Your task to perform on an android device: turn on the 24-hour format for clock Image 0: 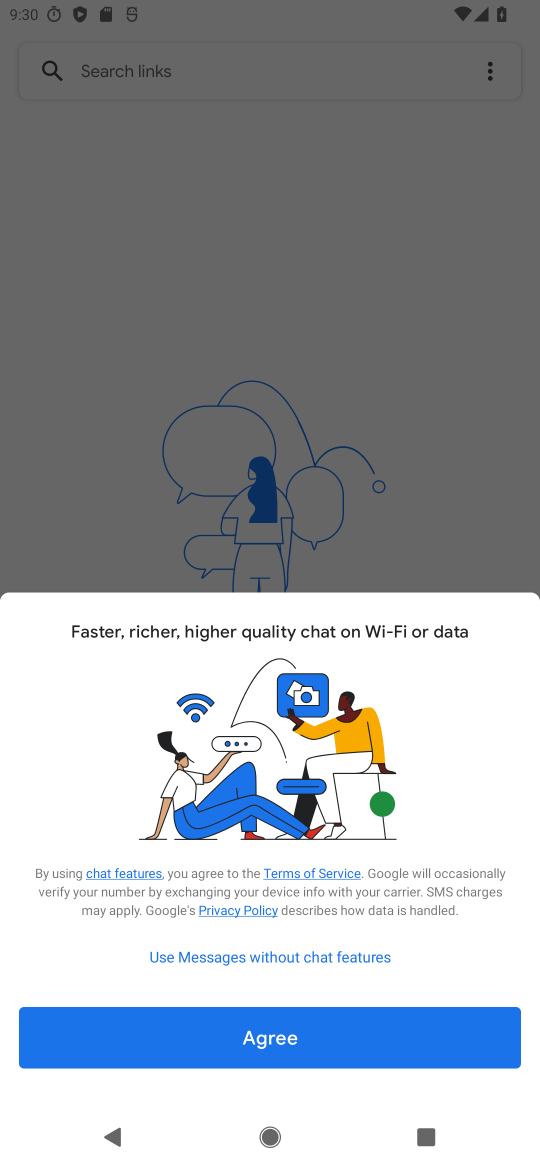
Step 0: press home button
Your task to perform on an android device: turn on the 24-hour format for clock Image 1: 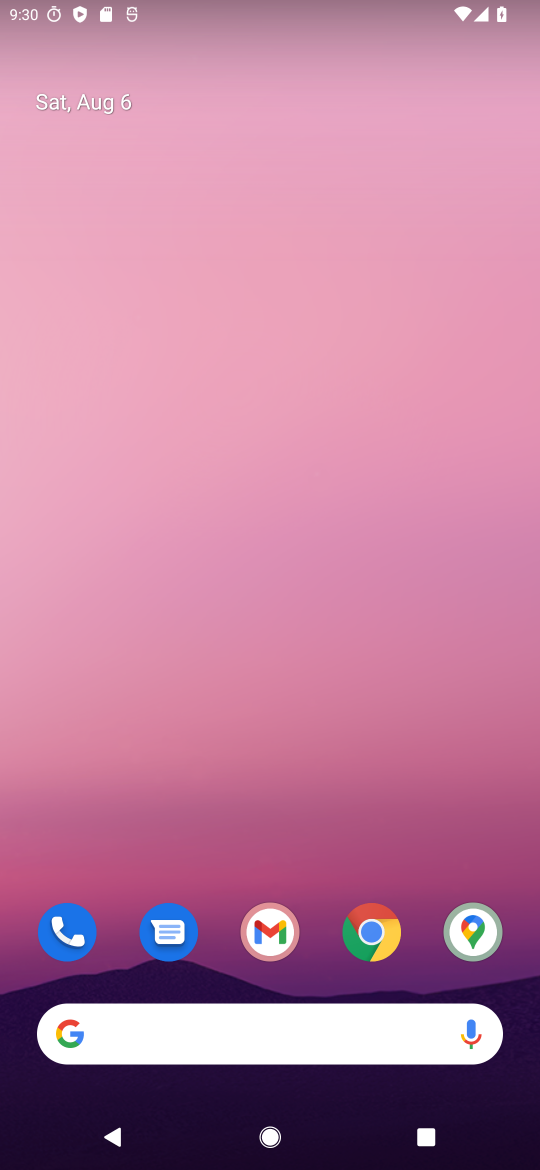
Step 1: drag from (279, 1030) to (386, 219)
Your task to perform on an android device: turn on the 24-hour format for clock Image 2: 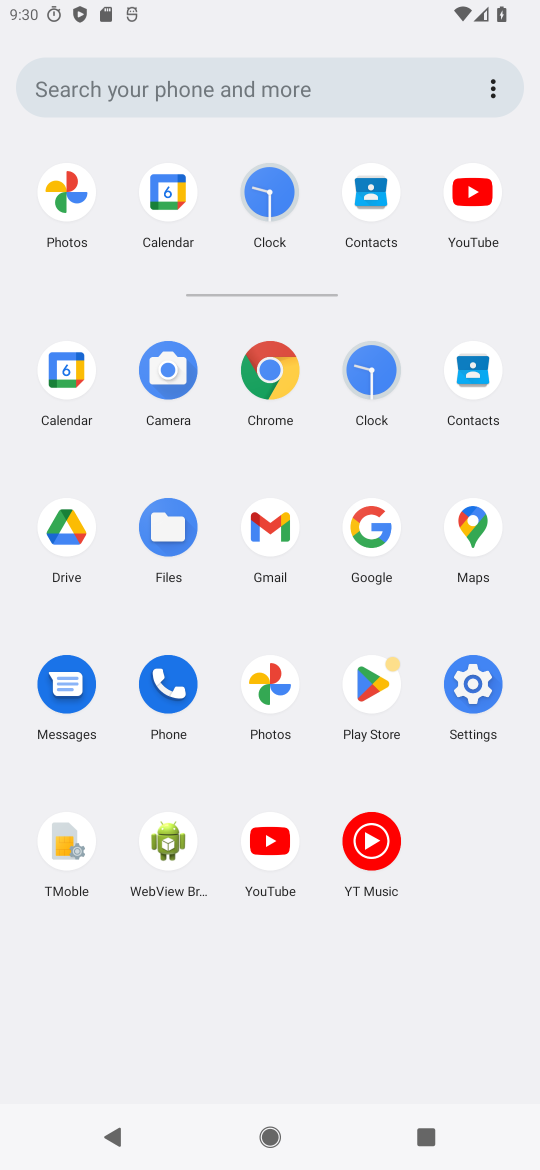
Step 2: click (272, 193)
Your task to perform on an android device: turn on the 24-hour format for clock Image 3: 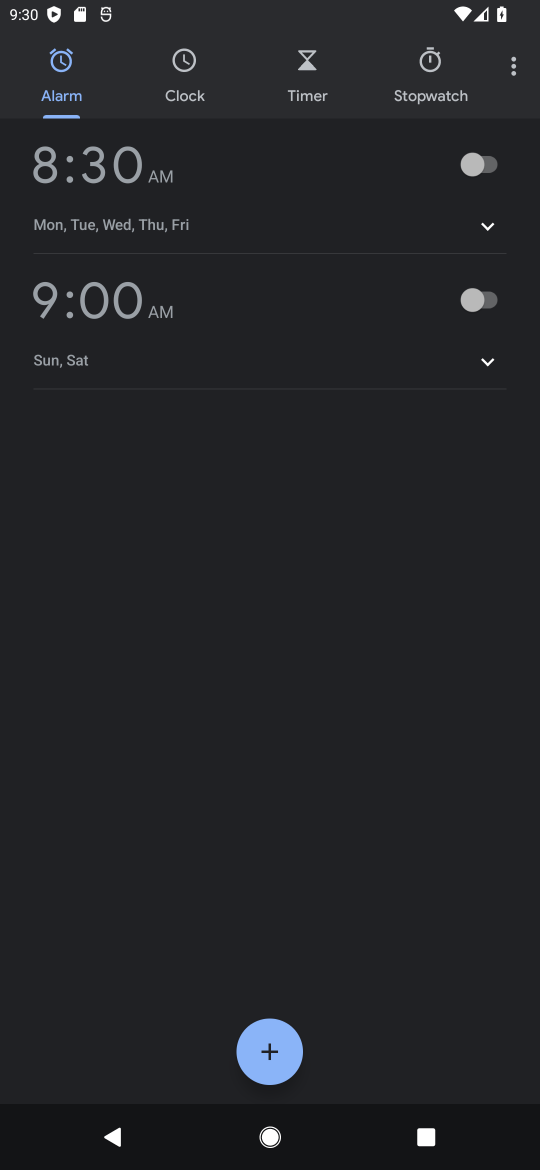
Step 3: click (516, 67)
Your task to perform on an android device: turn on the 24-hour format for clock Image 4: 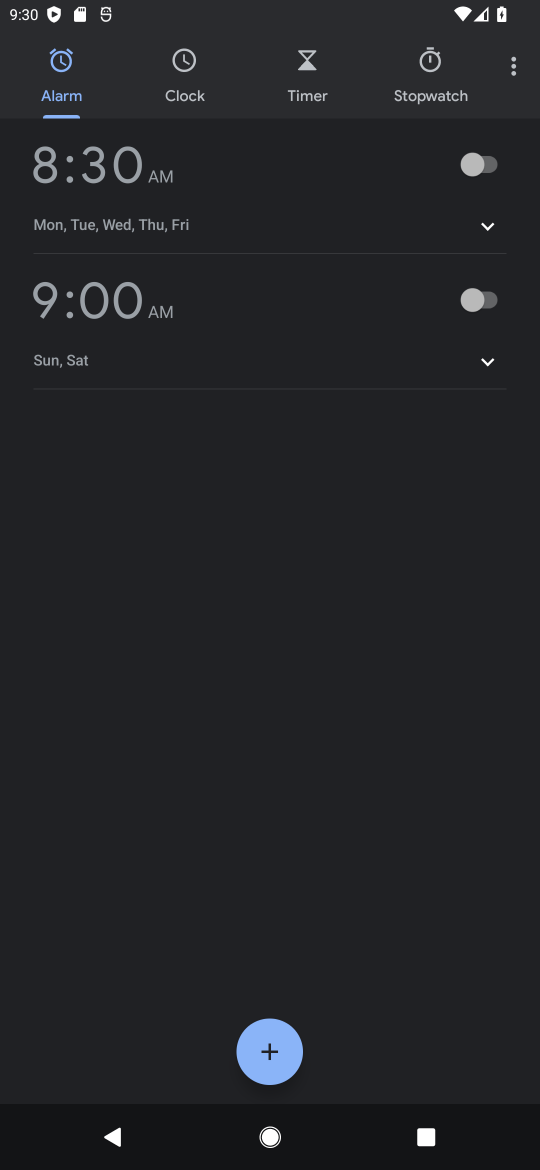
Step 4: click (517, 68)
Your task to perform on an android device: turn on the 24-hour format for clock Image 5: 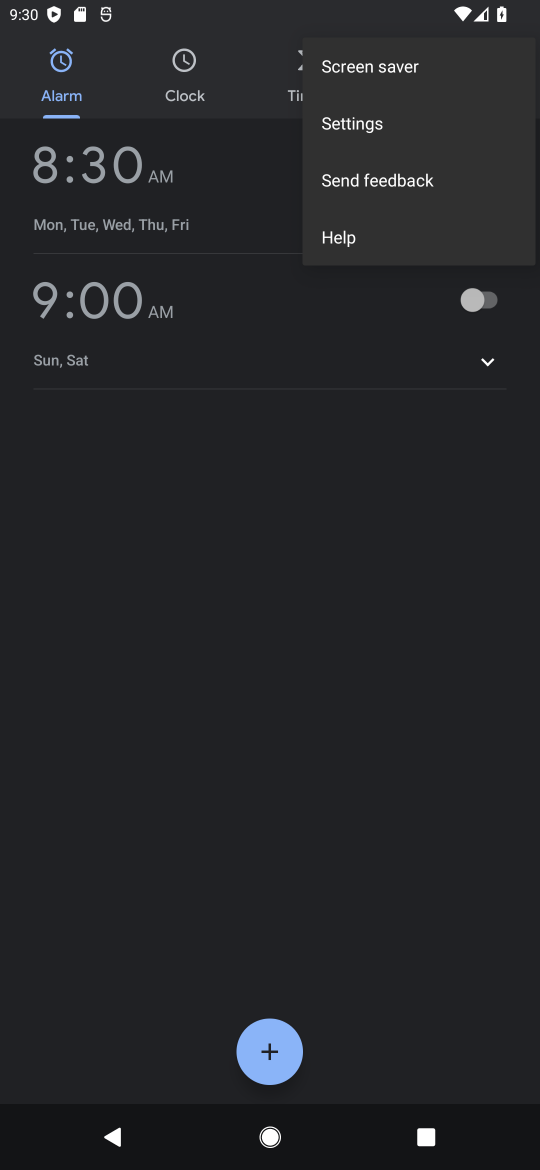
Step 5: click (379, 125)
Your task to perform on an android device: turn on the 24-hour format for clock Image 6: 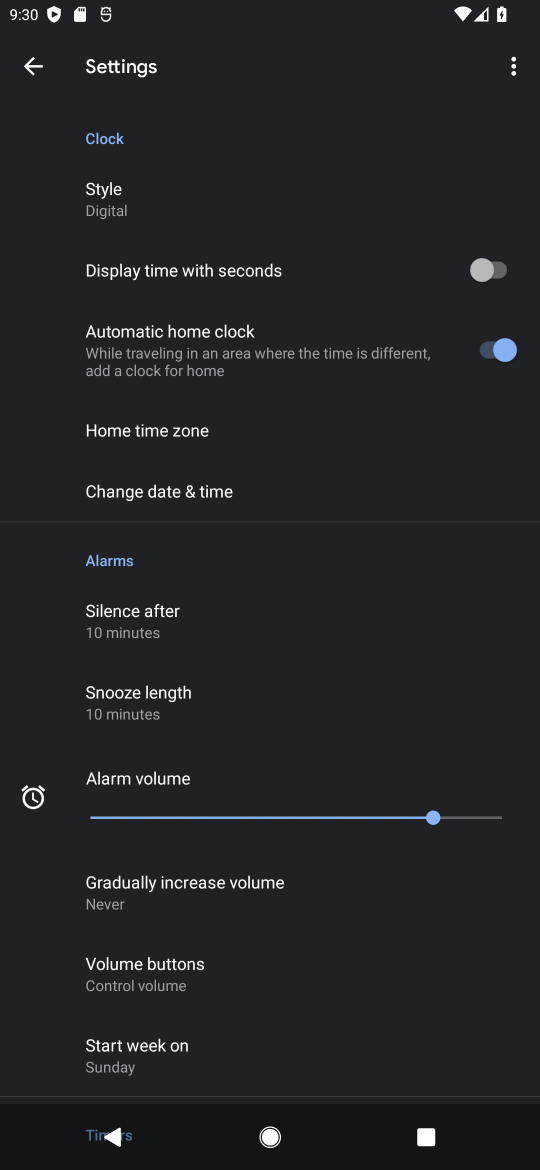
Step 6: click (162, 494)
Your task to perform on an android device: turn on the 24-hour format for clock Image 7: 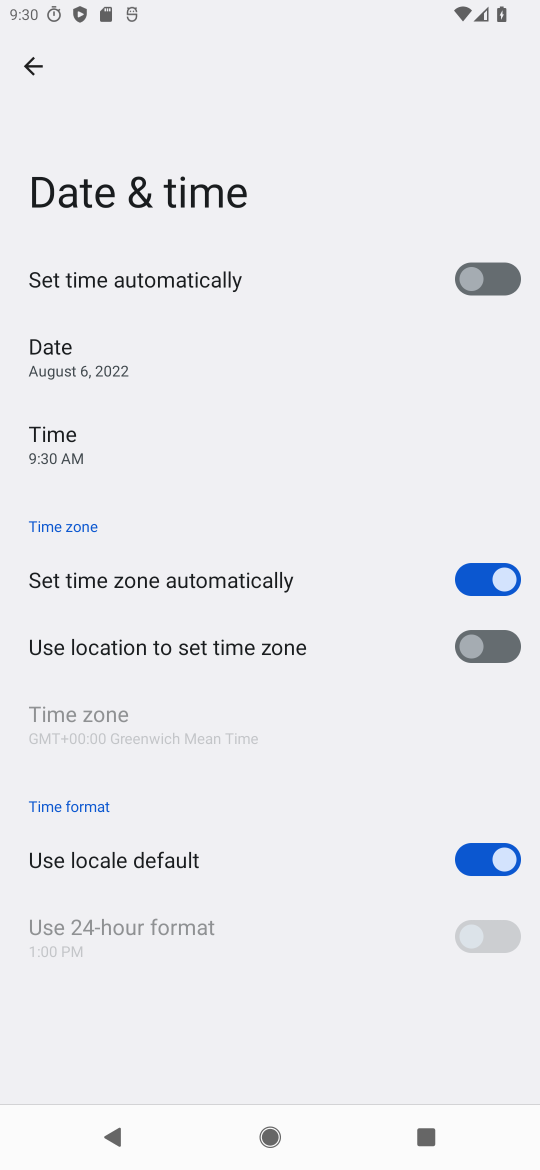
Step 7: click (466, 858)
Your task to perform on an android device: turn on the 24-hour format for clock Image 8: 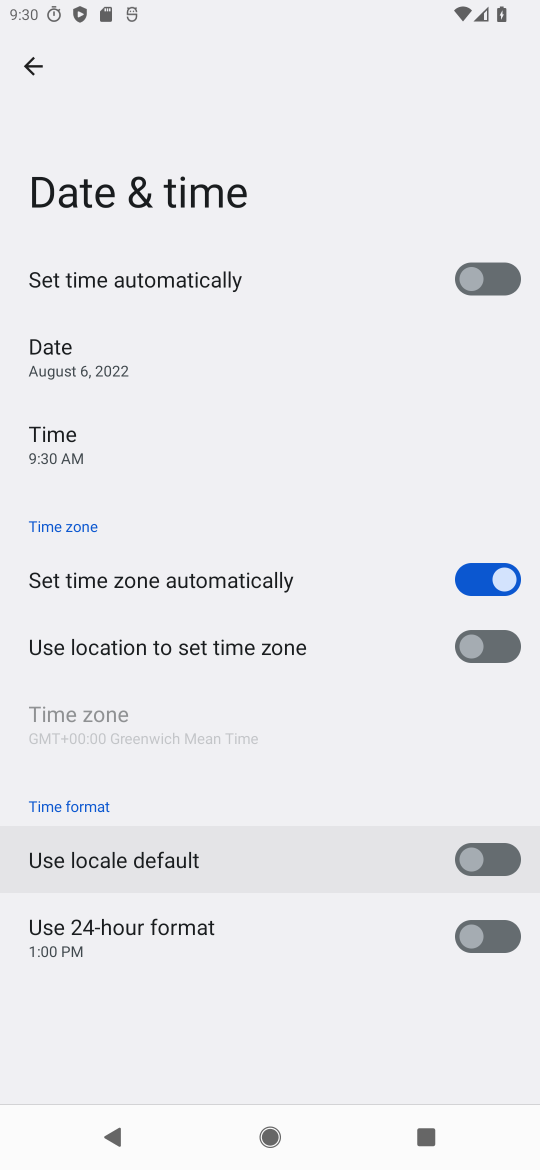
Step 8: click (517, 926)
Your task to perform on an android device: turn on the 24-hour format for clock Image 9: 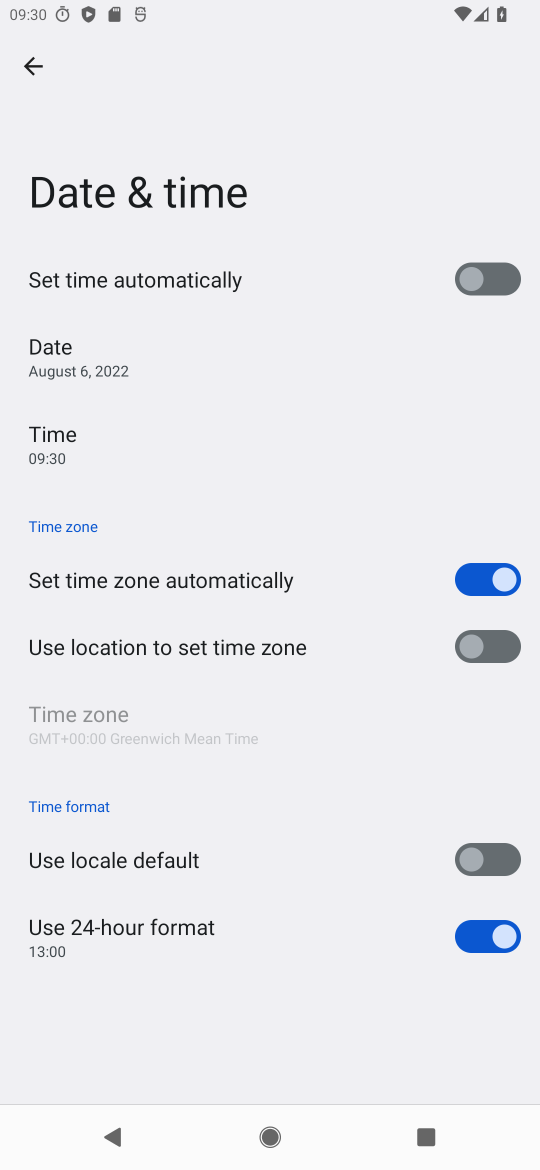
Step 9: task complete